Your task to perform on an android device: turn pop-ups on in chrome Image 0: 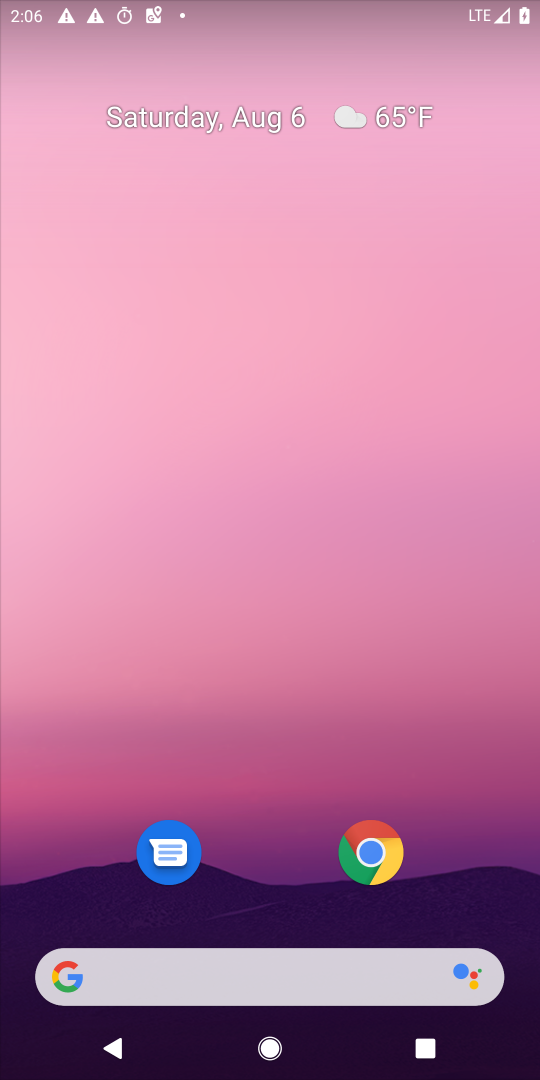
Step 0: drag from (356, 954) to (191, 309)
Your task to perform on an android device: turn pop-ups on in chrome Image 1: 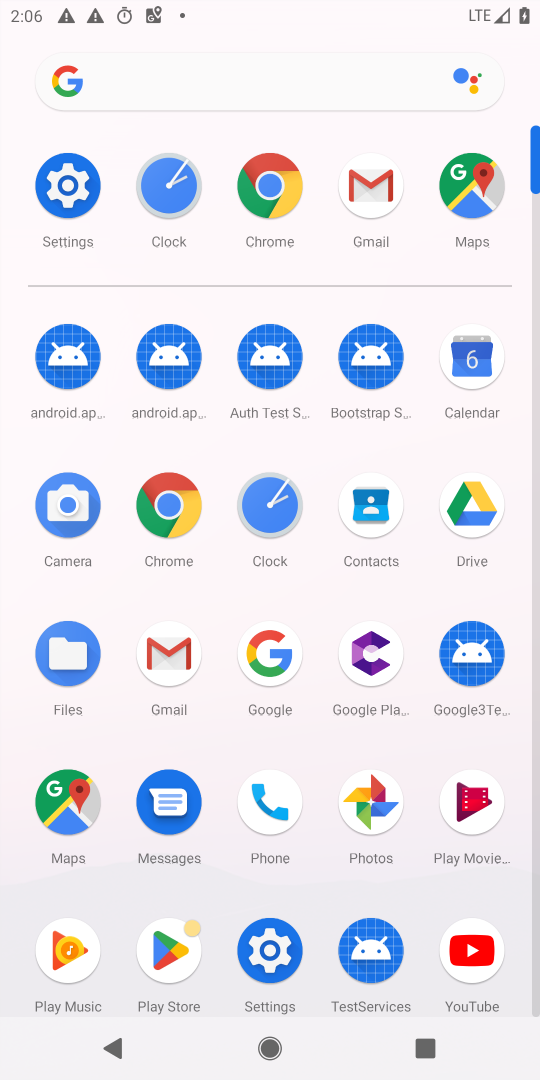
Step 1: click (276, 199)
Your task to perform on an android device: turn pop-ups on in chrome Image 2: 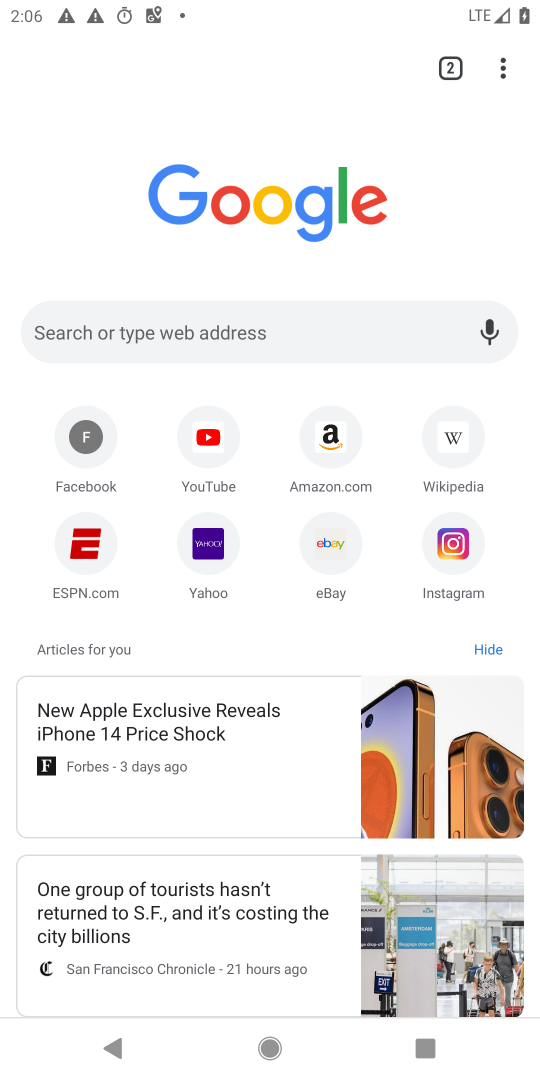
Step 2: click (498, 78)
Your task to perform on an android device: turn pop-ups on in chrome Image 3: 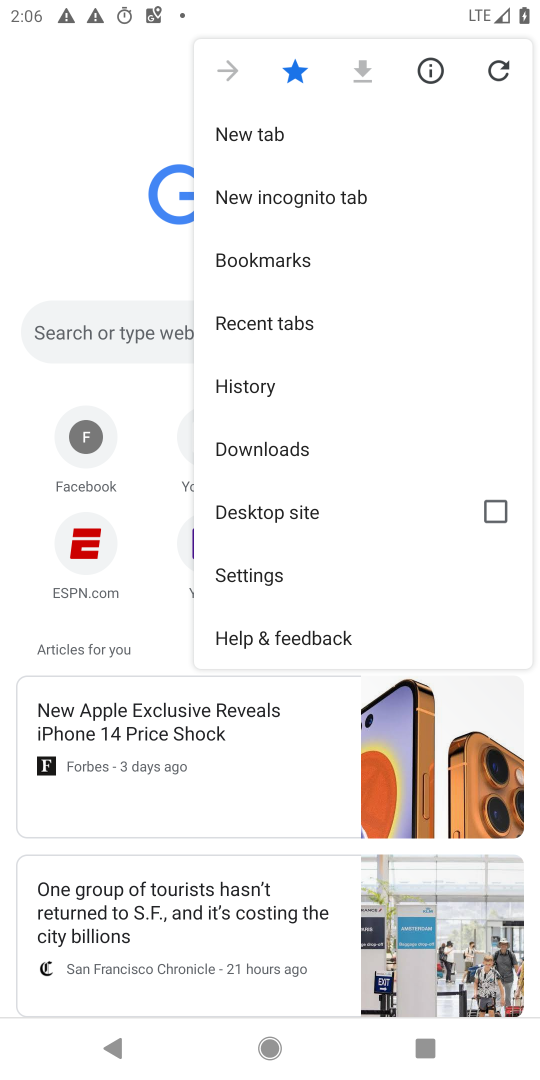
Step 3: click (257, 574)
Your task to perform on an android device: turn pop-ups on in chrome Image 4: 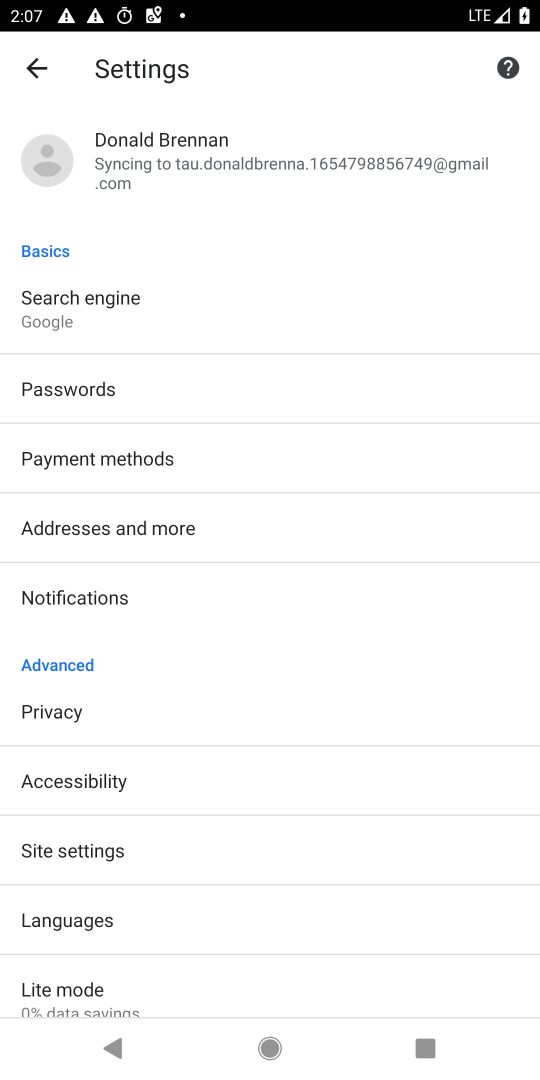
Step 4: click (66, 846)
Your task to perform on an android device: turn pop-ups on in chrome Image 5: 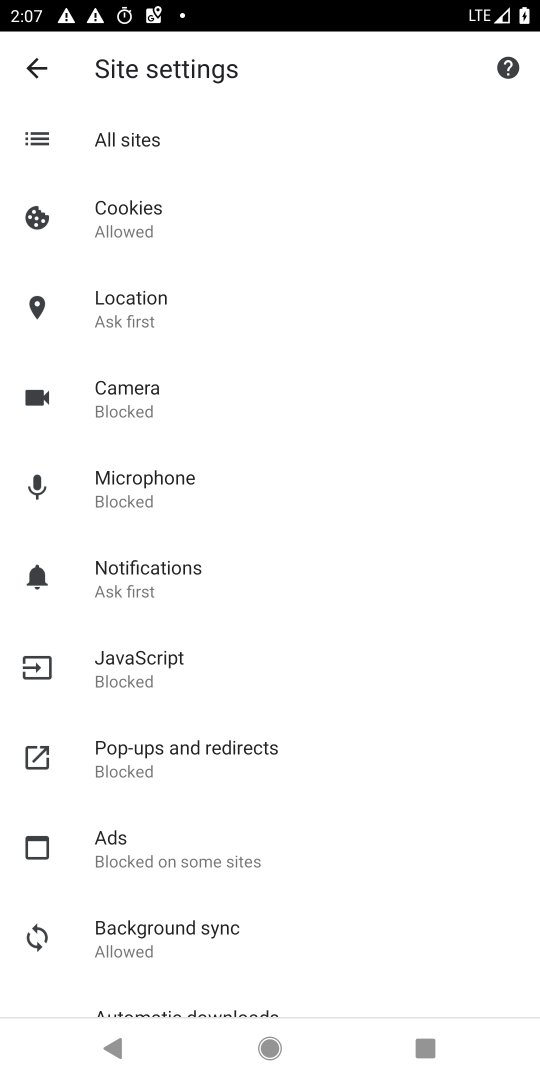
Step 5: click (161, 757)
Your task to perform on an android device: turn pop-ups on in chrome Image 6: 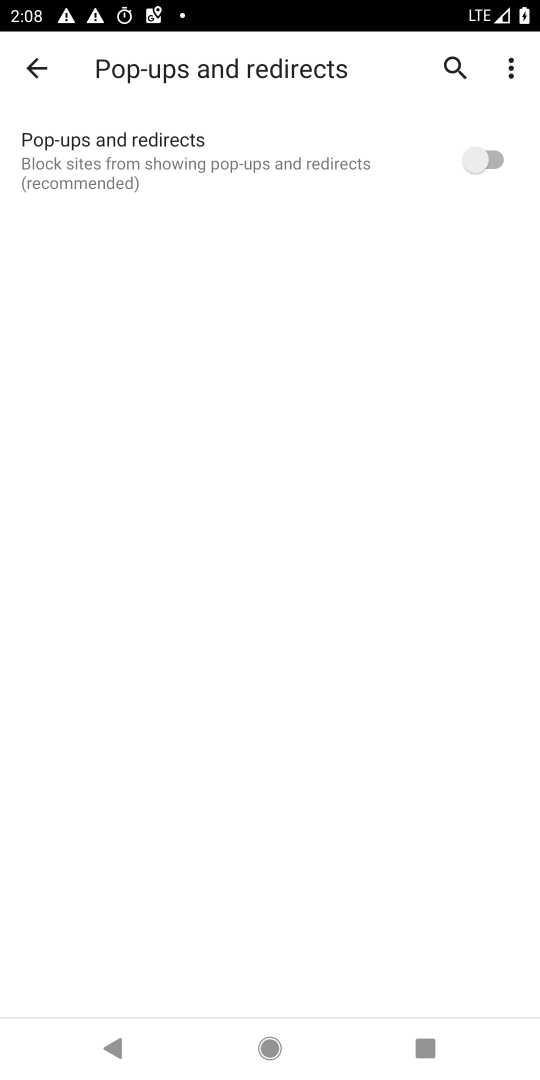
Step 6: task complete